Your task to perform on an android device: Open calendar and show me the fourth week of next month Image 0: 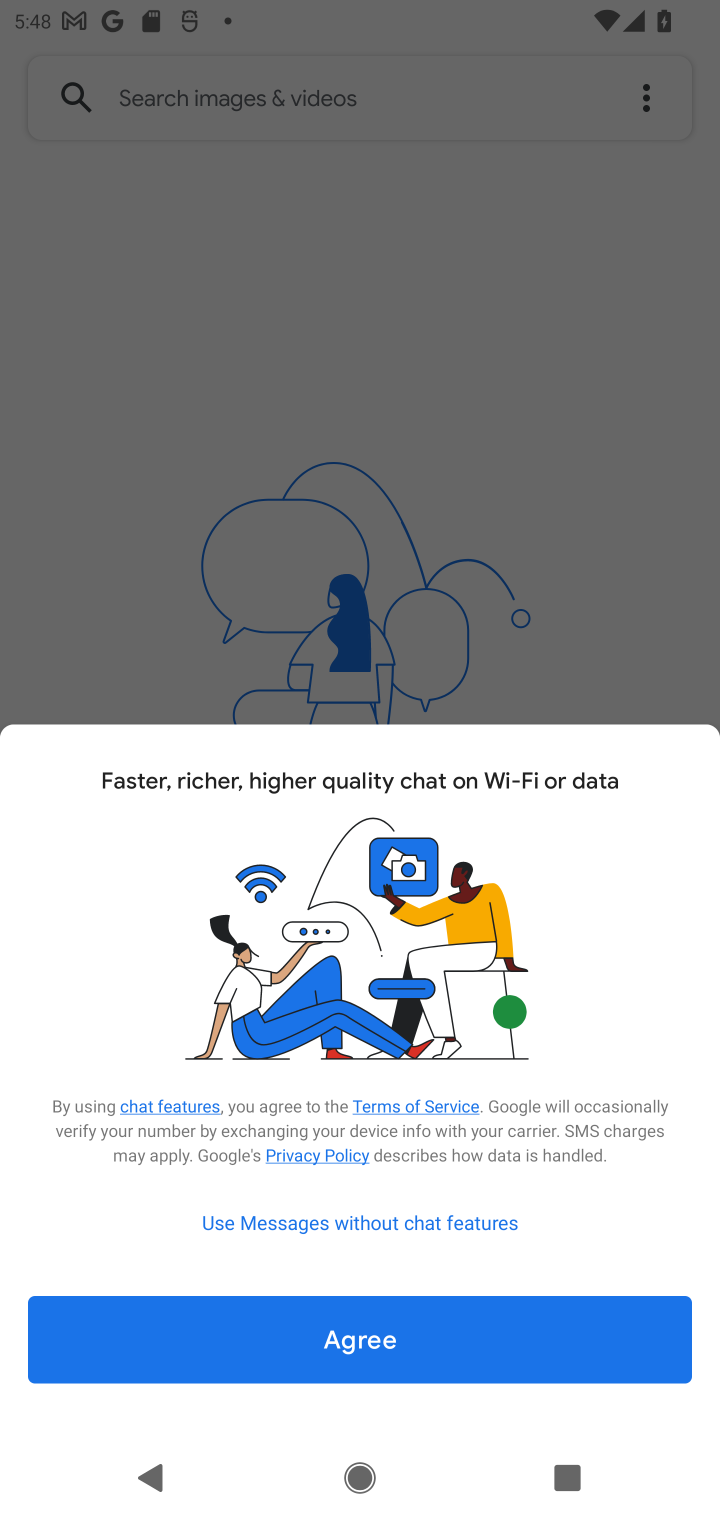
Step 0: press home button
Your task to perform on an android device: Open calendar and show me the fourth week of next month Image 1: 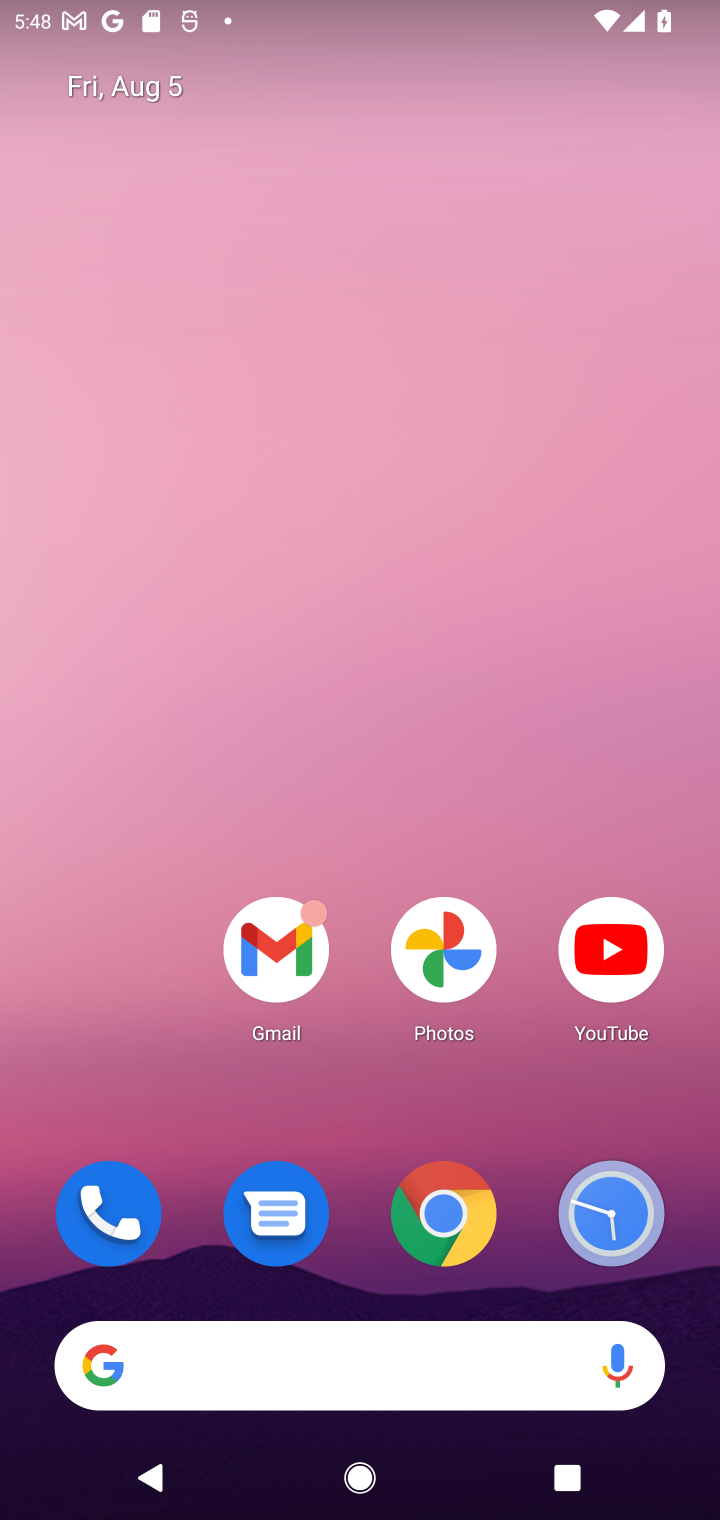
Step 1: drag from (350, 1273) to (274, 22)
Your task to perform on an android device: Open calendar and show me the fourth week of next month Image 2: 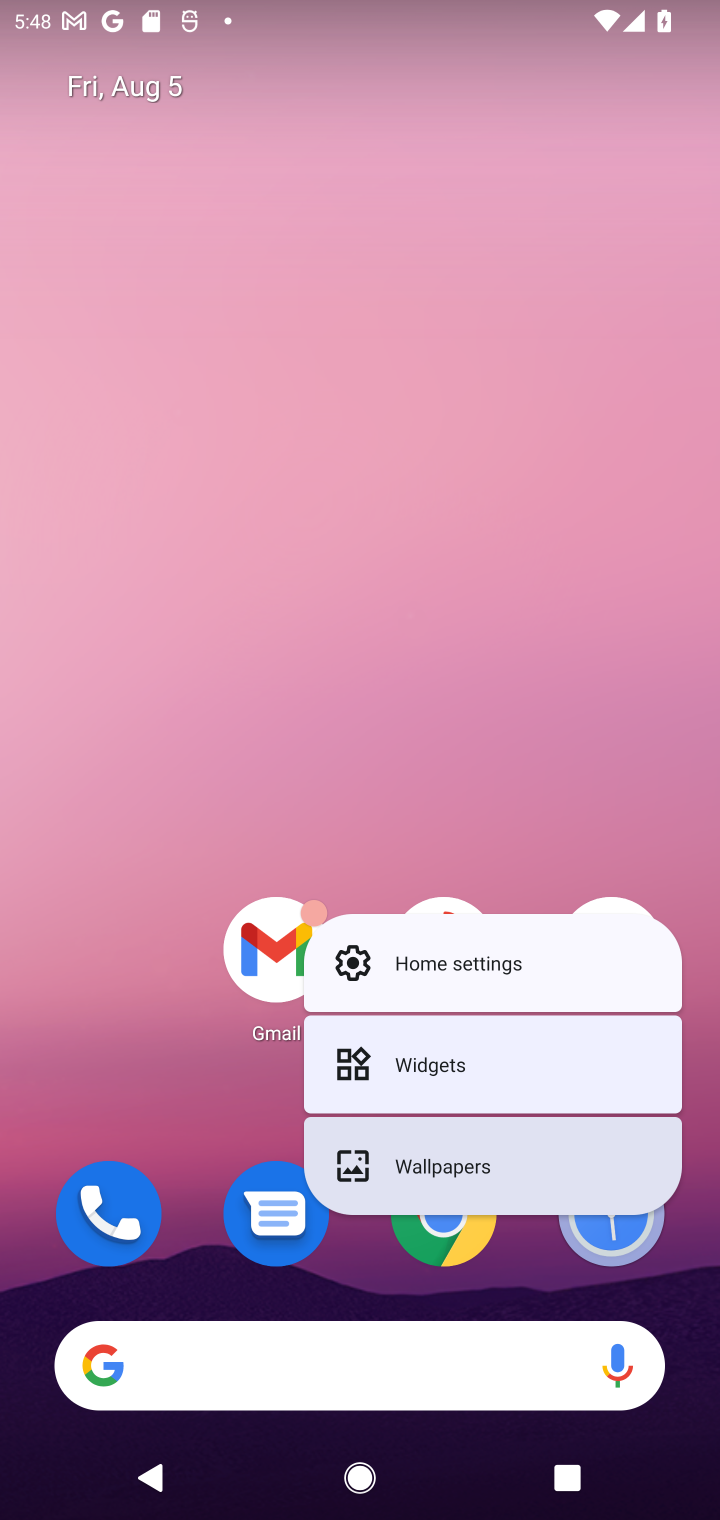
Step 2: click (314, 460)
Your task to perform on an android device: Open calendar and show me the fourth week of next month Image 3: 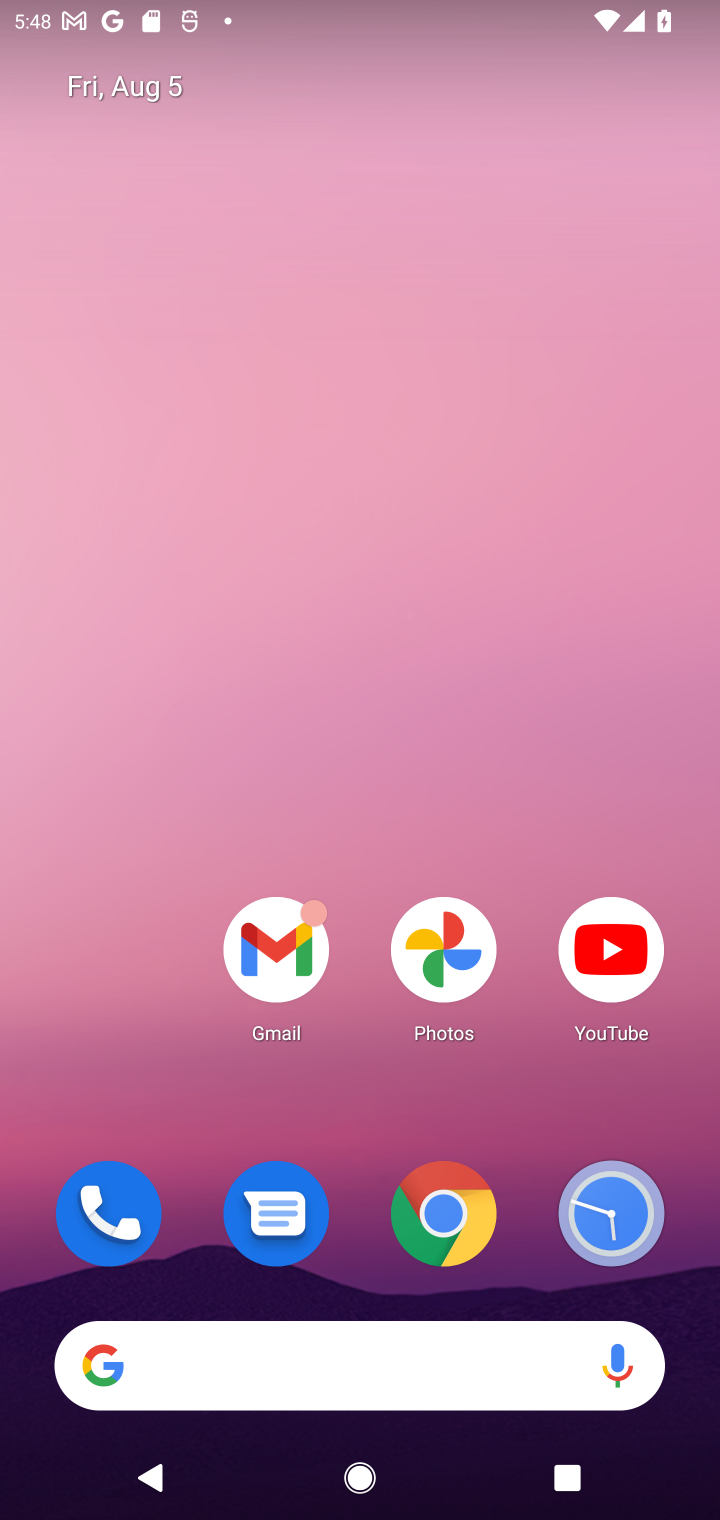
Step 3: drag from (358, 1295) to (401, 60)
Your task to perform on an android device: Open calendar and show me the fourth week of next month Image 4: 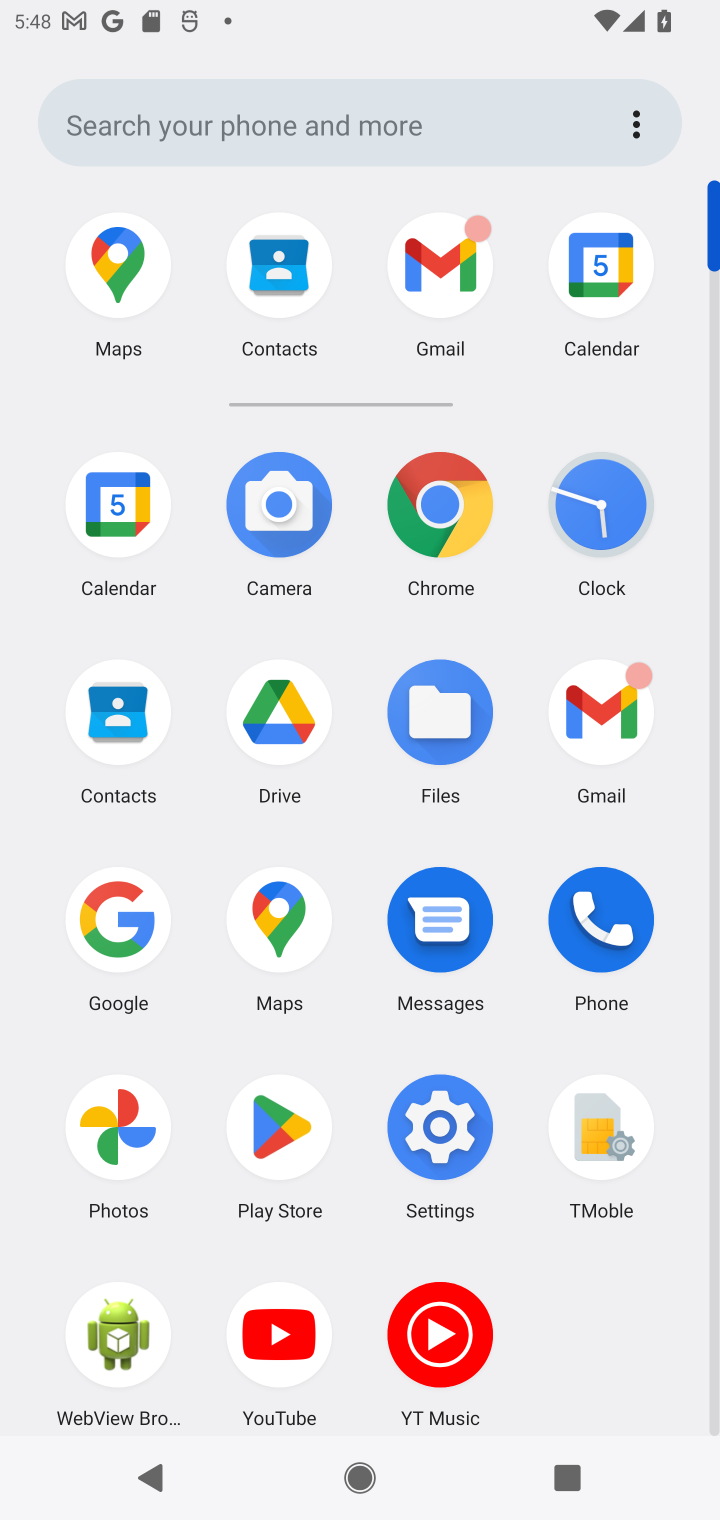
Step 4: click (112, 519)
Your task to perform on an android device: Open calendar and show me the fourth week of next month Image 5: 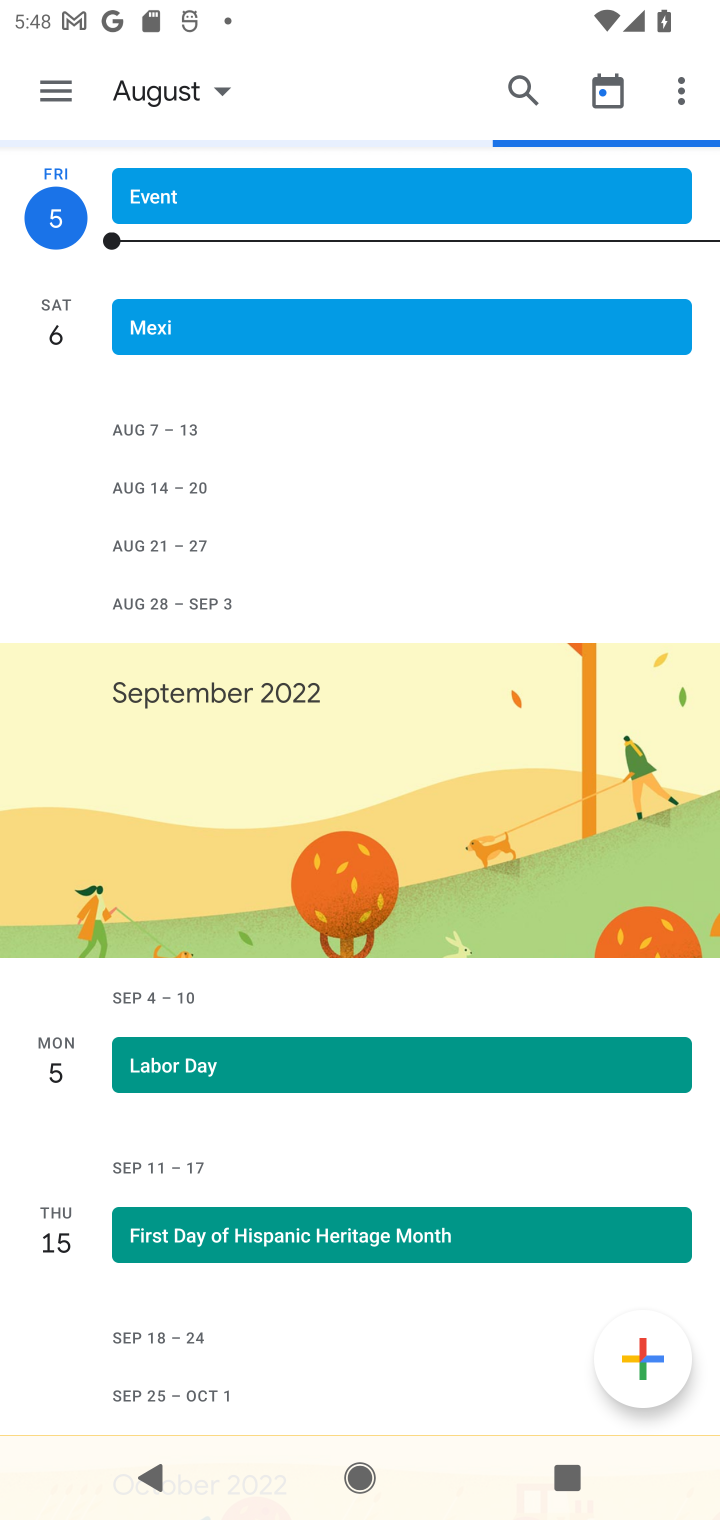
Step 5: task complete